Your task to perform on an android device: What's the weather going to be this weekend? Image 0: 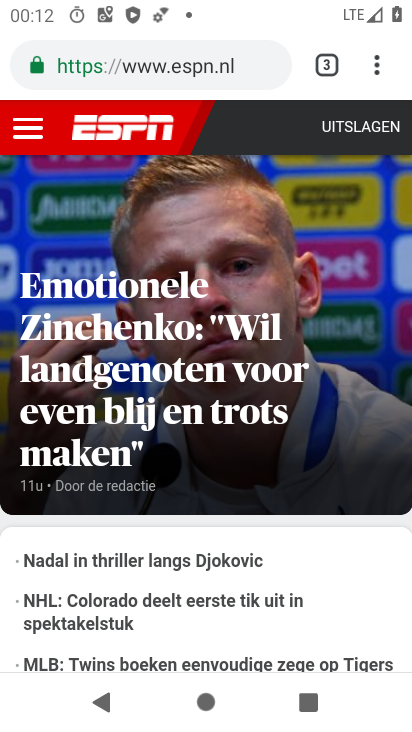
Step 0: press home button
Your task to perform on an android device: What's the weather going to be this weekend? Image 1: 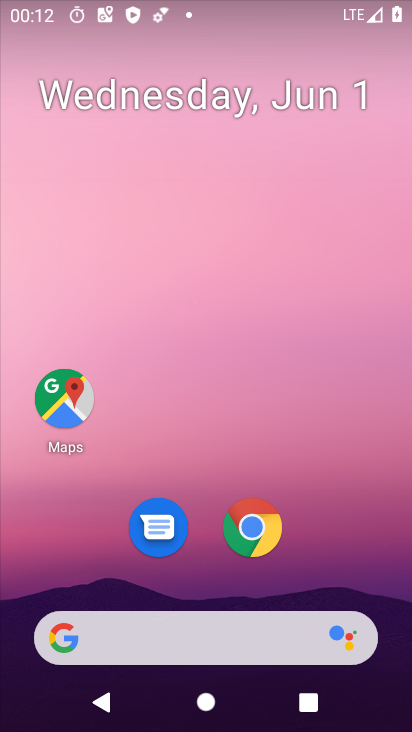
Step 1: drag from (200, 624) to (275, 18)
Your task to perform on an android device: What's the weather going to be this weekend? Image 2: 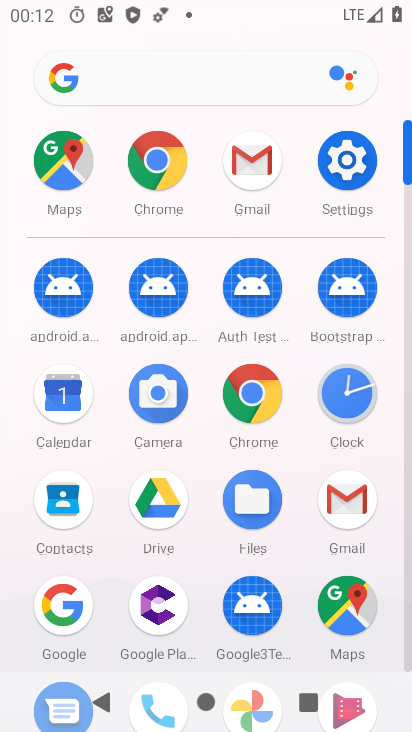
Step 2: click (105, 80)
Your task to perform on an android device: What's the weather going to be this weekend? Image 3: 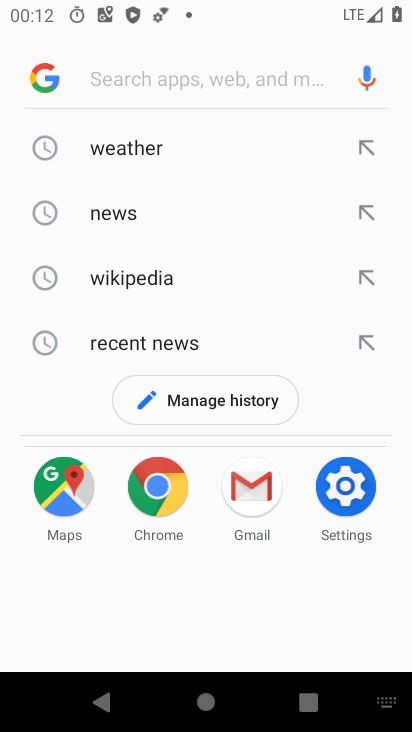
Step 3: type " weather going to be this weekend?"
Your task to perform on an android device: What's the weather going to be this weekend? Image 4: 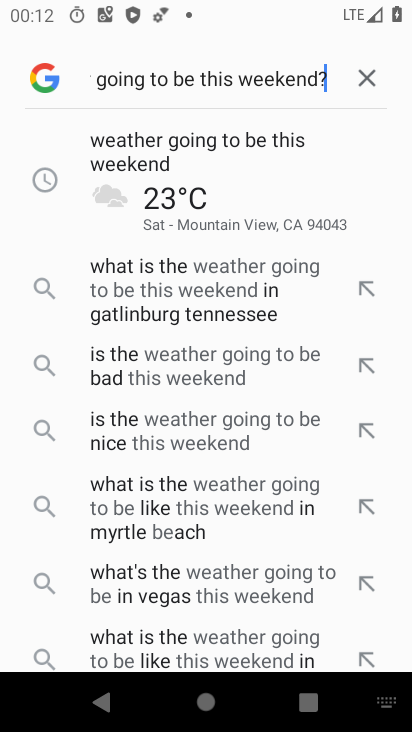
Step 4: type ""
Your task to perform on an android device: What's the weather going to be this weekend? Image 5: 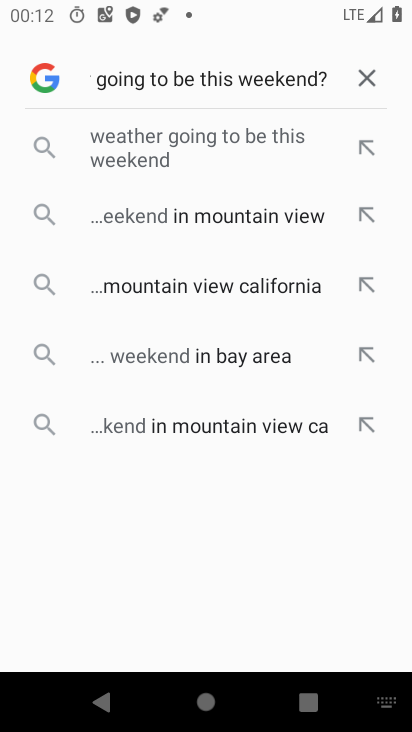
Step 5: click (153, 137)
Your task to perform on an android device: What's the weather going to be this weekend? Image 6: 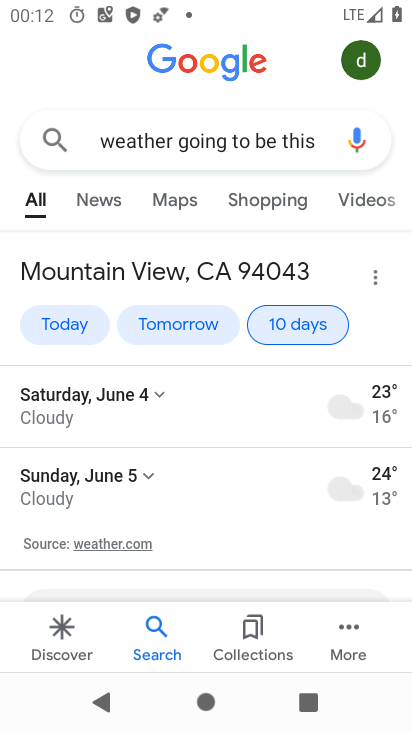
Step 6: task complete